Your task to perform on an android device: Clear the shopping cart on target.com. Add "dell xps" to the cart on target.com Image 0: 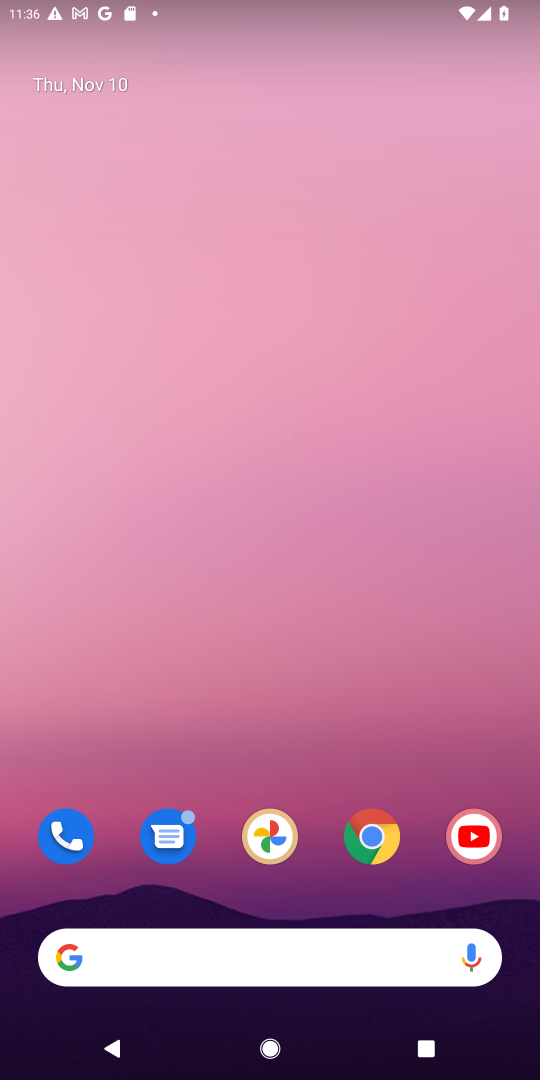
Step 0: click (271, 978)
Your task to perform on an android device: Clear the shopping cart on target.com. Add "dell xps" to the cart on target.com Image 1: 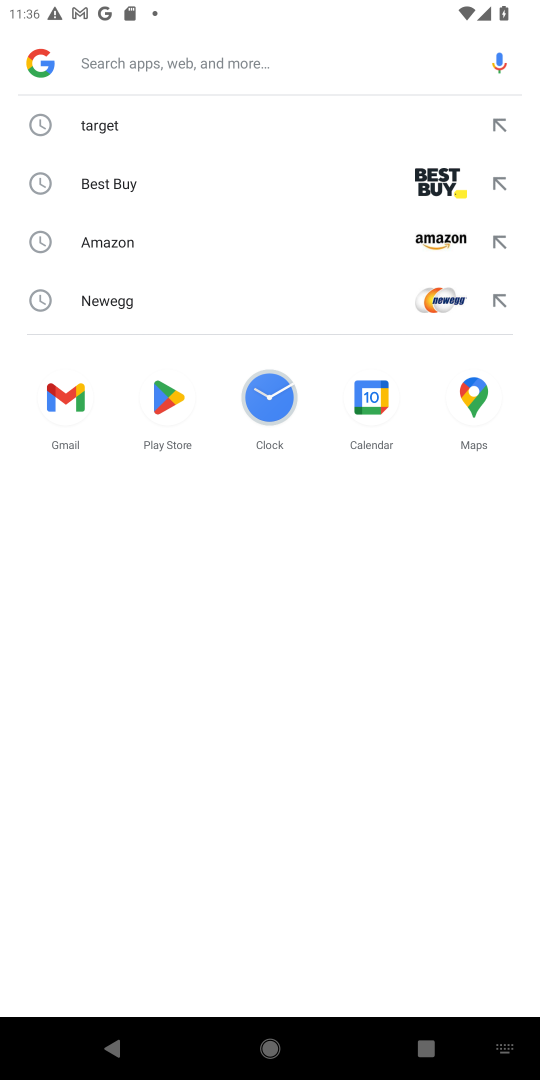
Step 1: click (271, 958)
Your task to perform on an android device: Clear the shopping cart on target.com. Add "dell xps" to the cart on target.com Image 2: 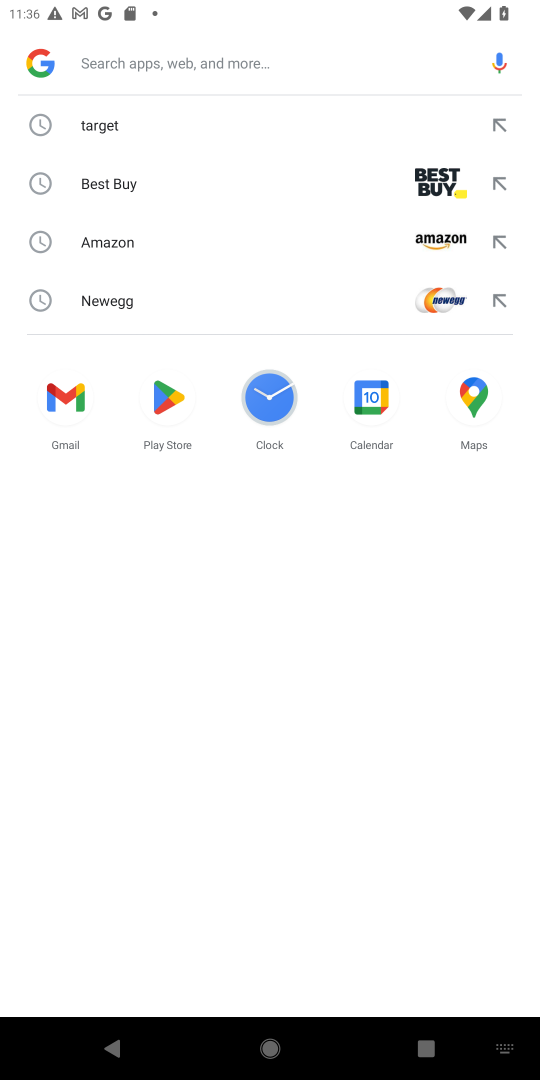
Step 2: type "target"
Your task to perform on an android device: Clear the shopping cart on target.com. Add "dell xps" to the cart on target.com Image 3: 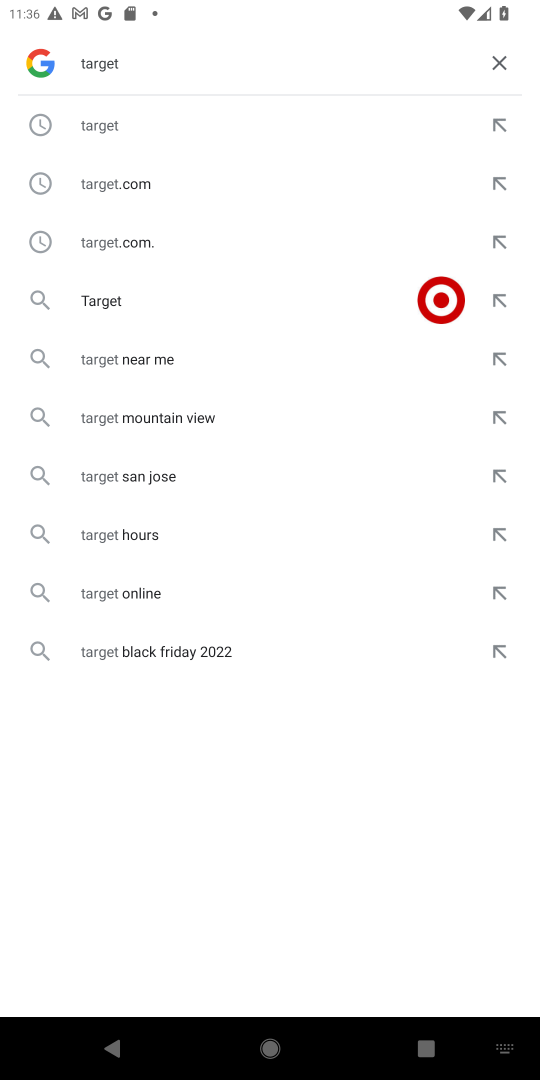
Step 3: click (144, 304)
Your task to perform on an android device: Clear the shopping cart on target.com. Add "dell xps" to the cart on target.com Image 4: 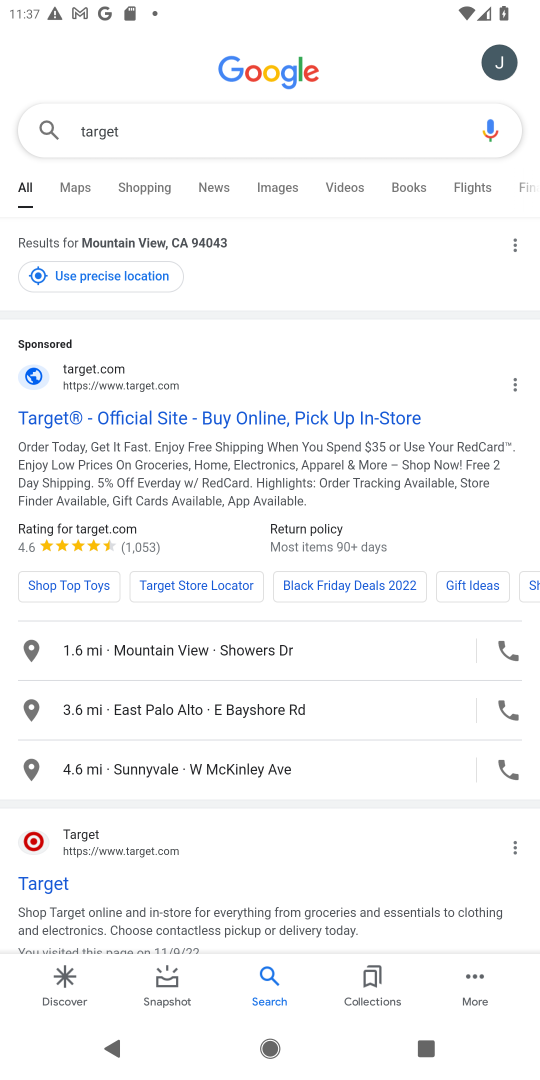
Step 4: click (78, 370)
Your task to perform on an android device: Clear the shopping cart on target.com. Add "dell xps" to the cart on target.com Image 5: 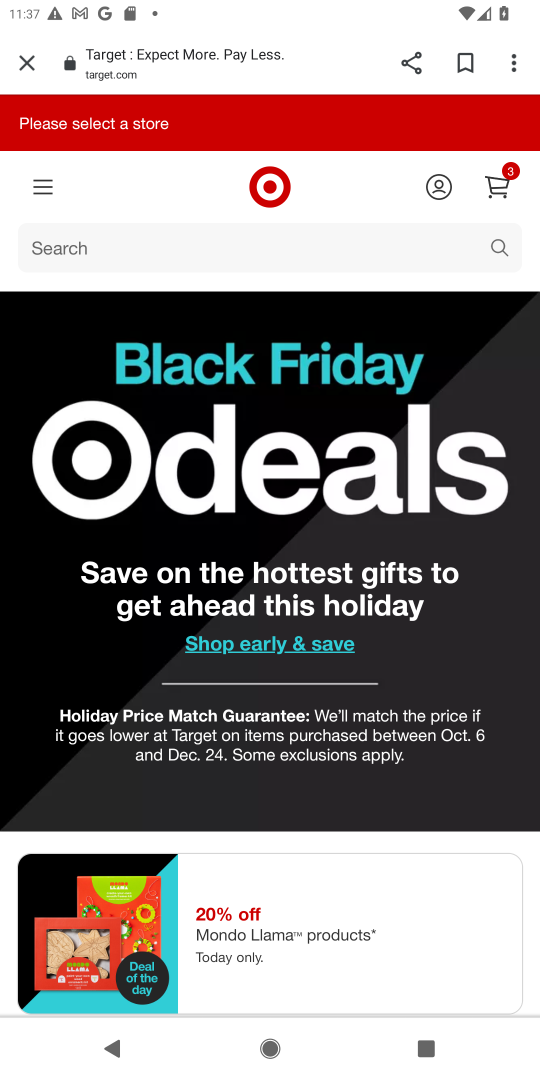
Step 5: click (398, 270)
Your task to perform on an android device: Clear the shopping cart on target.com. Add "dell xps" to the cart on target.com Image 6: 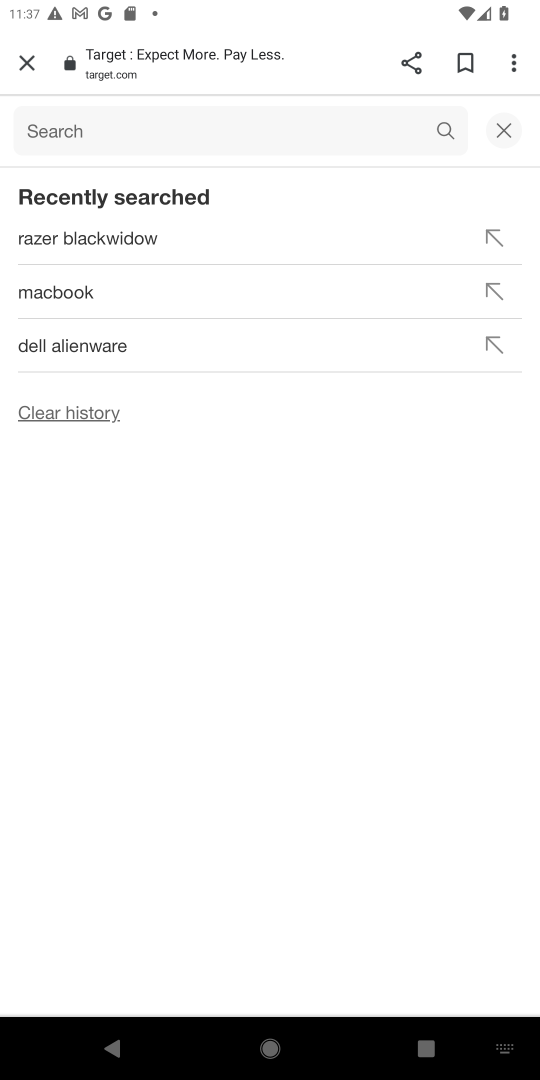
Step 6: type "dell xps"
Your task to perform on an android device: Clear the shopping cart on target.com. Add "dell xps" to the cart on target.com Image 7: 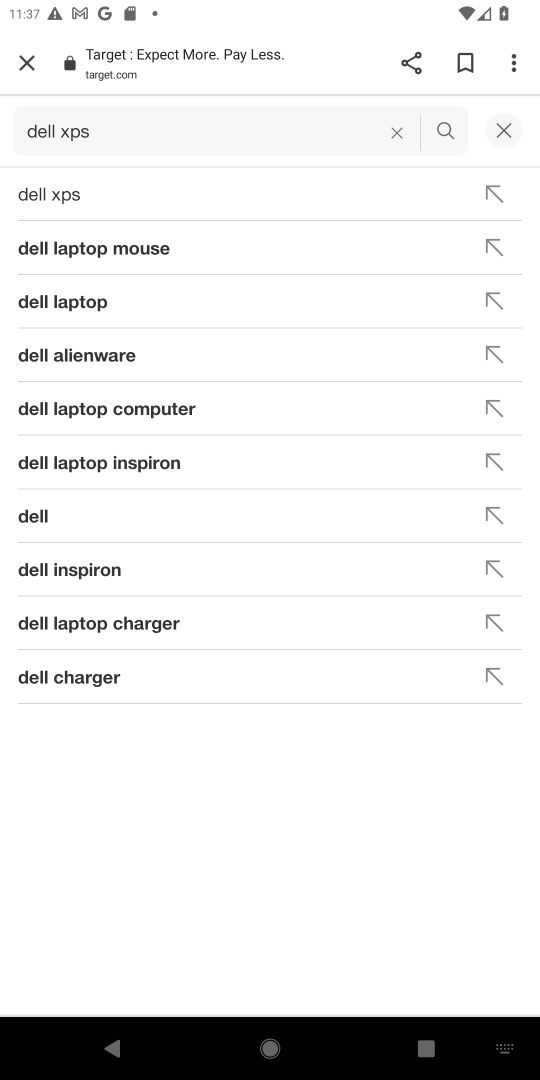
Step 7: click (71, 197)
Your task to perform on an android device: Clear the shopping cart on target.com. Add "dell xps" to the cart on target.com Image 8: 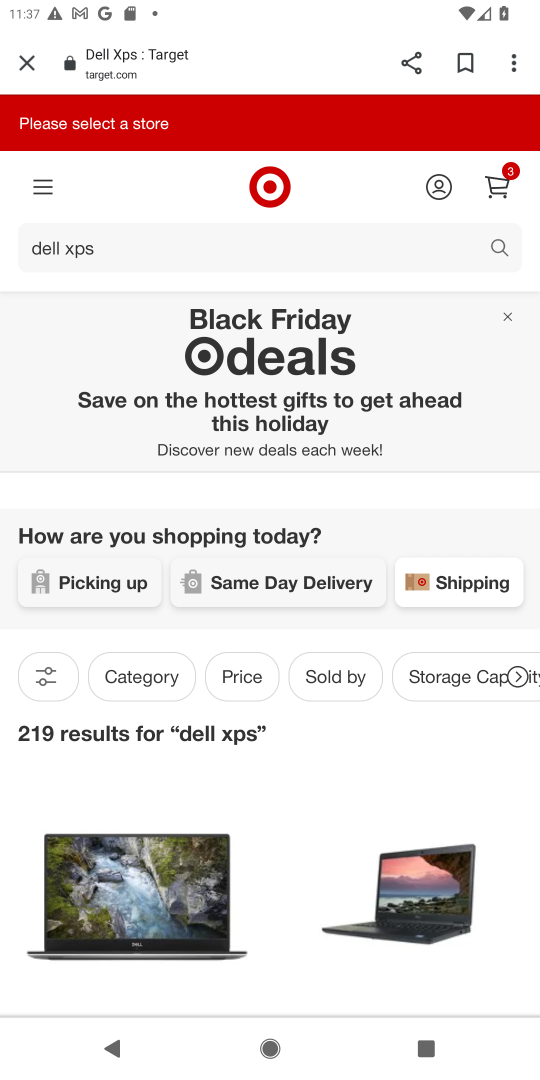
Step 8: drag from (264, 758) to (345, 371)
Your task to perform on an android device: Clear the shopping cart on target.com. Add "dell xps" to the cart on target.com Image 9: 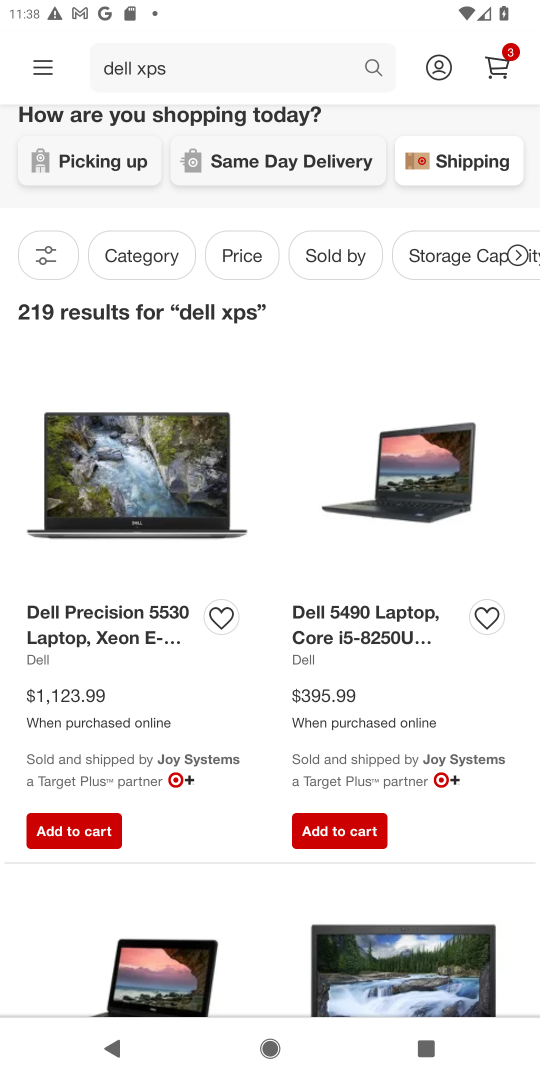
Step 9: drag from (302, 804) to (308, 533)
Your task to perform on an android device: Clear the shopping cart on target.com. Add "dell xps" to the cart on target.com Image 10: 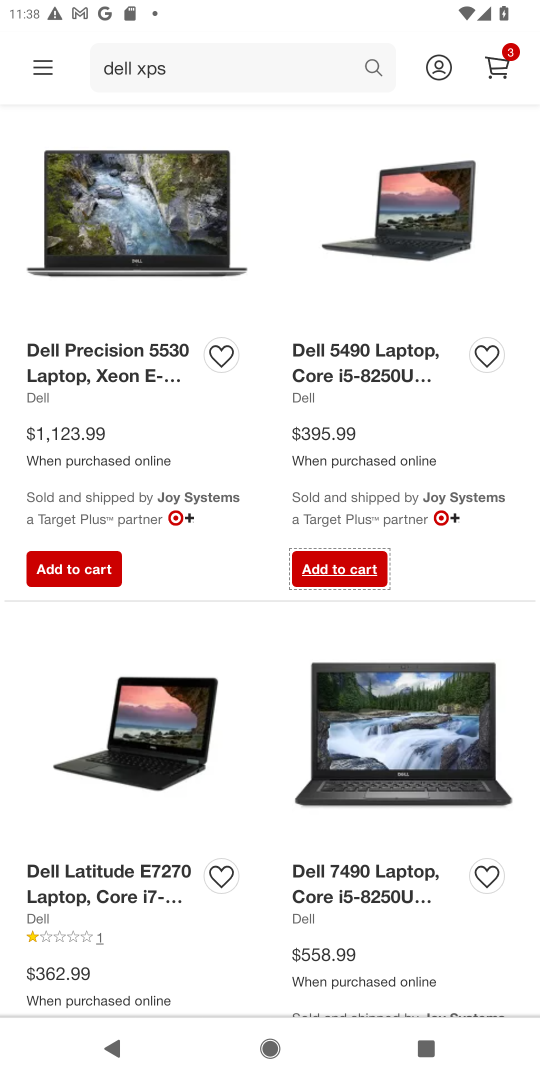
Step 10: click (72, 822)
Your task to perform on an android device: Clear the shopping cart on target.com. Add "dell xps" to the cart on target.com Image 11: 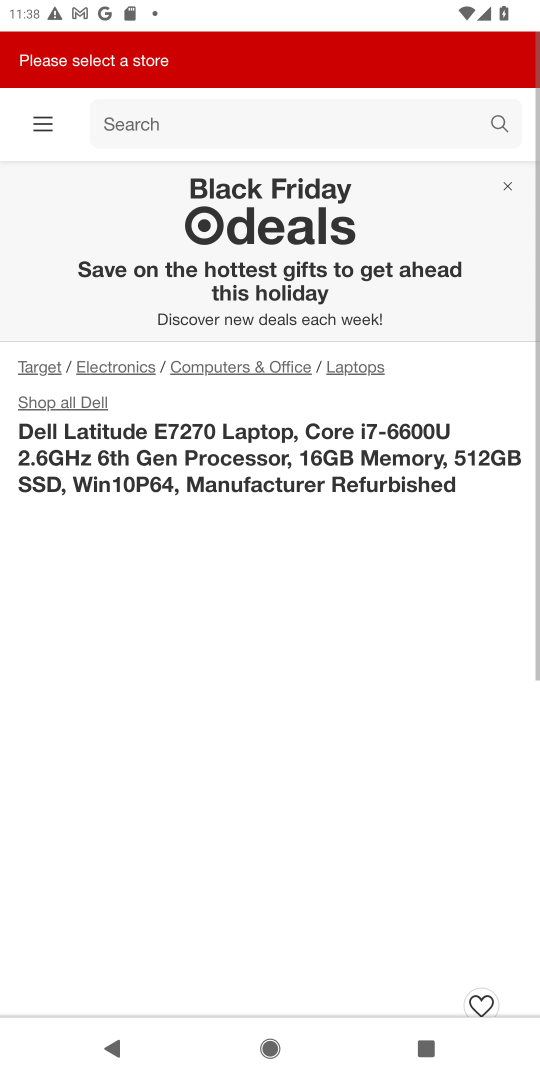
Step 11: click (72, 837)
Your task to perform on an android device: Clear the shopping cart on target.com. Add "dell xps" to the cart on target.com Image 12: 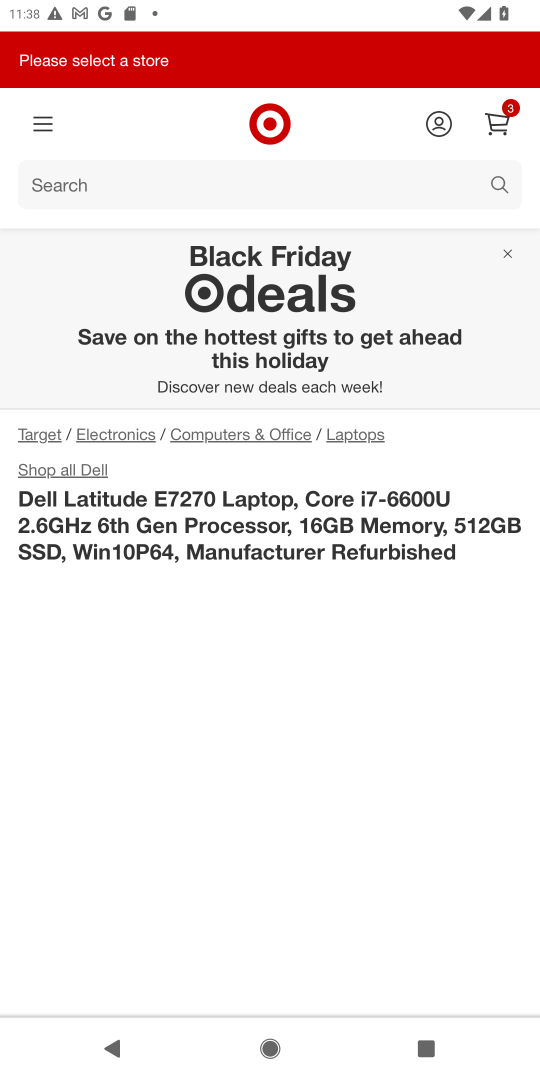
Step 12: click (79, 568)
Your task to perform on an android device: Clear the shopping cart on target.com. Add "dell xps" to the cart on target.com Image 13: 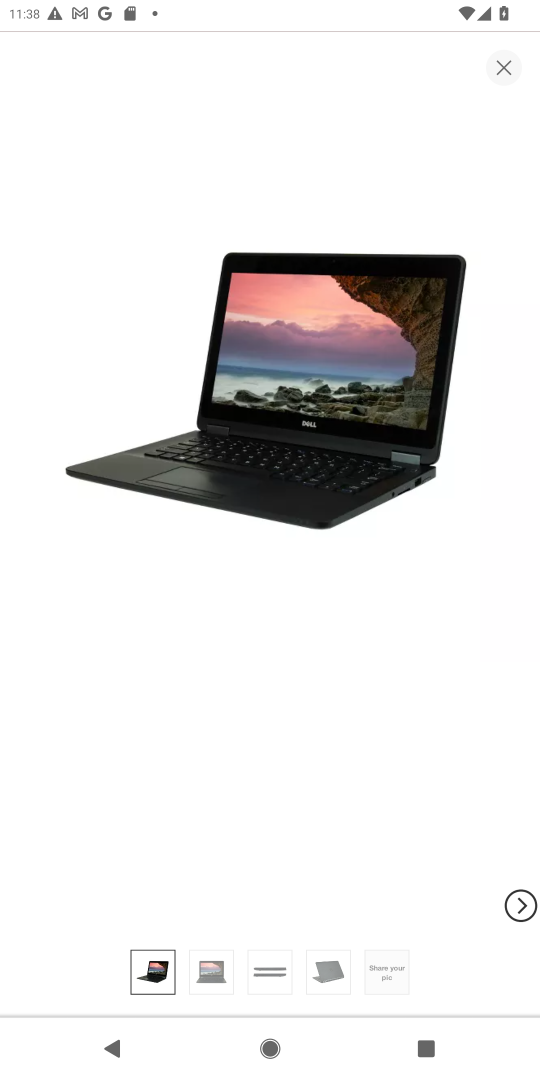
Step 13: task complete